Your task to perform on an android device: toggle data saver in the chrome app Image 0: 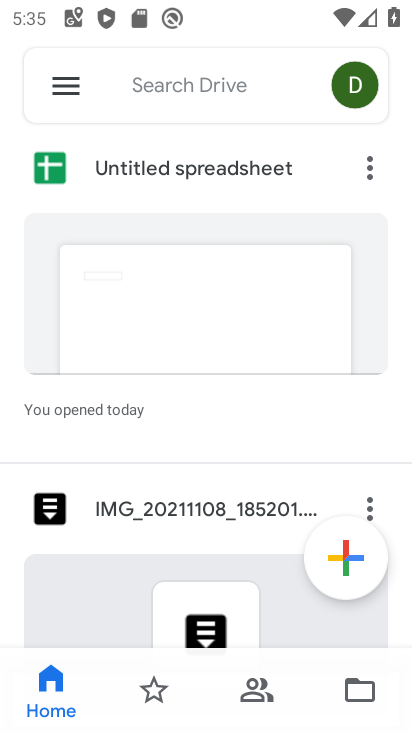
Step 0: press home button
Your task to perform on an android device: toggle data saver in the chrome app Image 1: 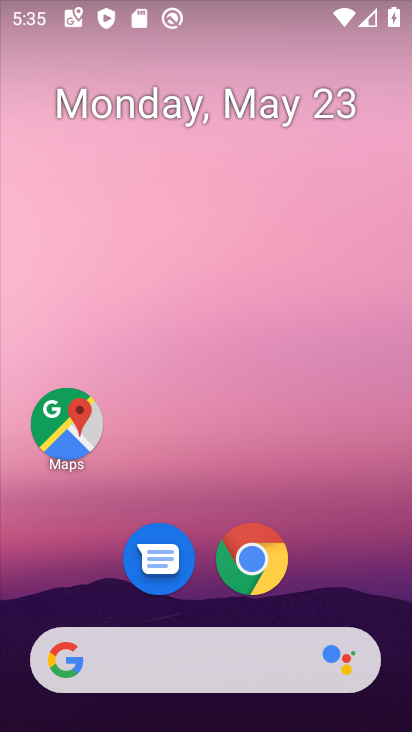
Step 1: drag from (224, 614) to (321, 31)
Your task to perform on an android device: toggle data saver in the chrome app Image 2: 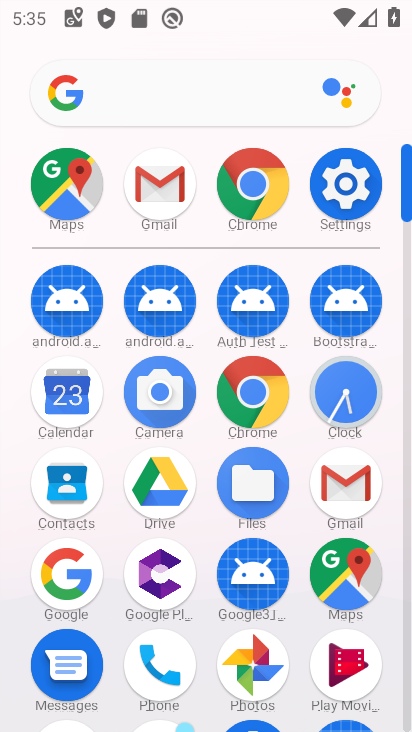
Step 2: click (250, 393)
Your task to perform on an android device: toggle data saver in the chrome app Image 3: 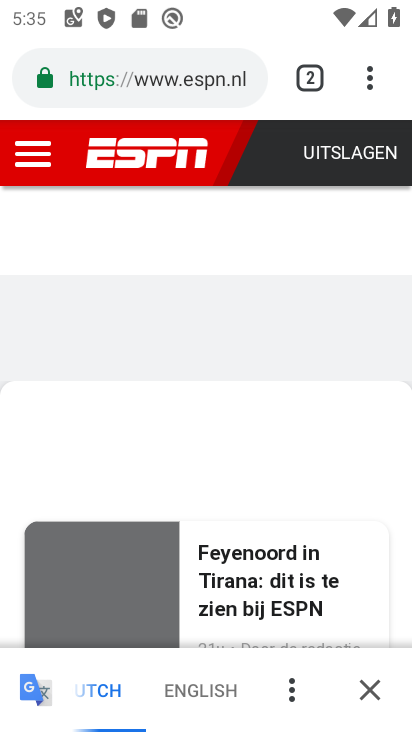
Step 3: drag from (353, 68) to (147, 626)
Your task to perform on an android device: toggle data saver in the chrome app Image 4: 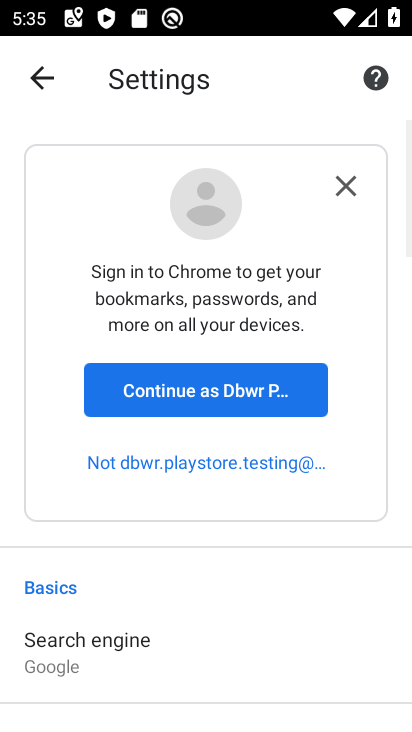
Step 4: drag from (210, 676) to (162, 86)
Your task to perform on an android device: toggle data saver in the chrome app Image 5: 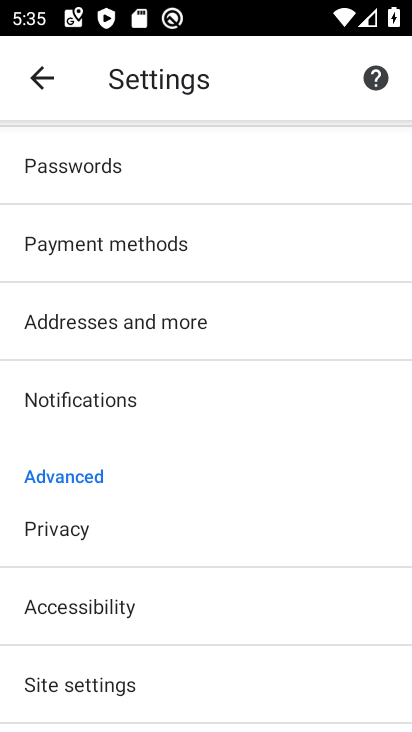
Step 5: drag from (123, 670) to (168, 173)
Your task to perform on an android device: toggle data saver in the chrome app Image 6: 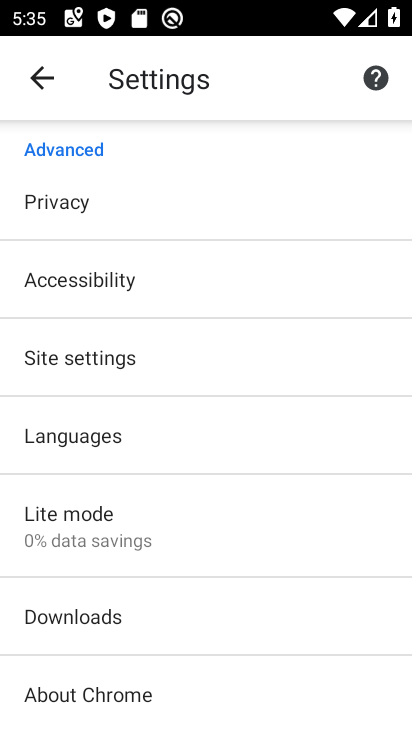
Step 6: click (144, 532)
Your task to perform on an android device: toggle data saver in the chrome app Image 7: 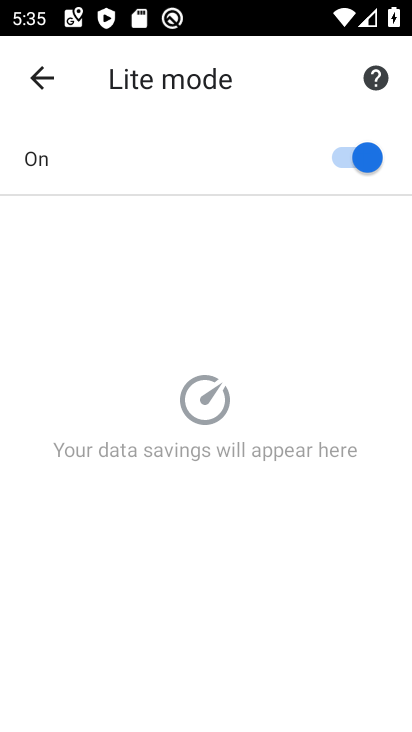
Step 7: click (344, 156)
Your task to perform on an android device: toggle data saver in the chrome app Image 8: 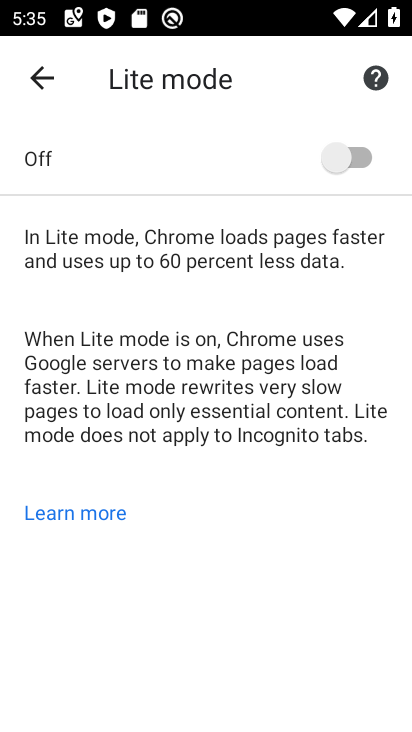
Step 8: task complete